Your task to perform on an android device: Open Google Image 0: 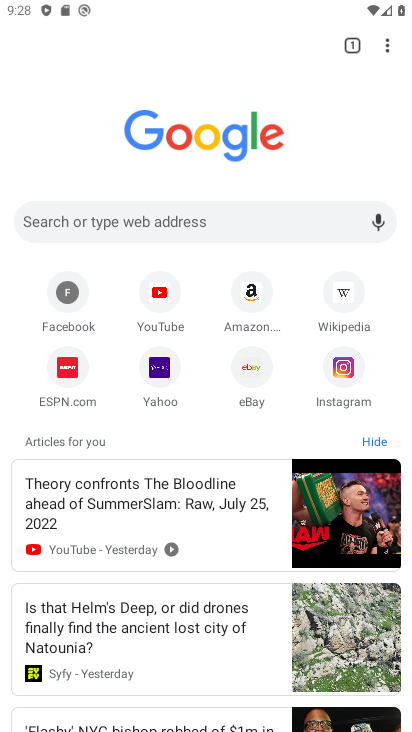
Step 0: click (237, 441)
Your task to perform on an android device: Open Google Image 1: 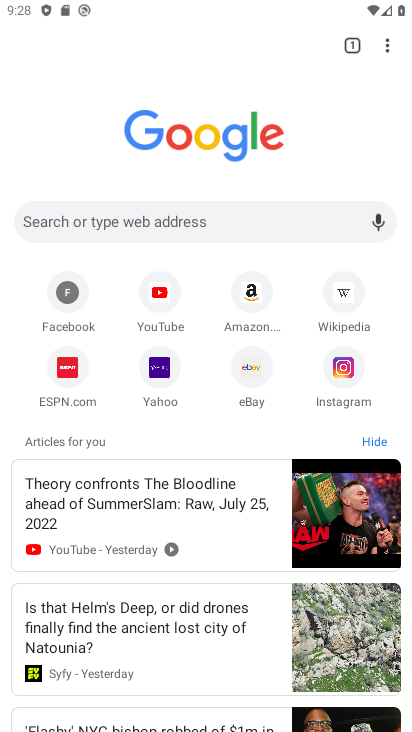
Step 1: task complete